Your task to perform on an android device: Open calendar and show me the first week of next month Image 0: 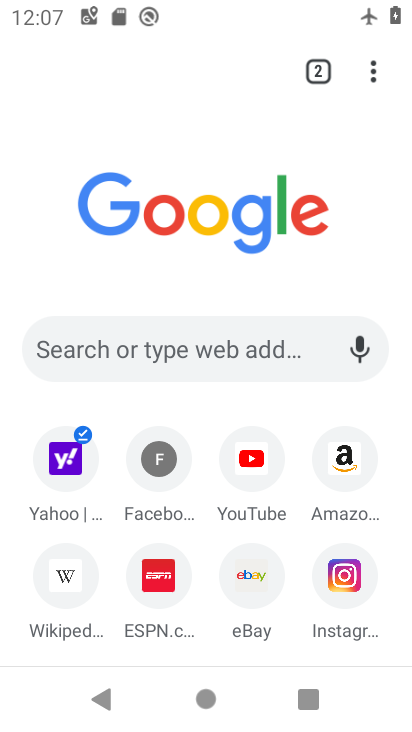
Step 0: press back button
Your task to perform on an android device: Open calendar and show me the first week of next month Image 1: 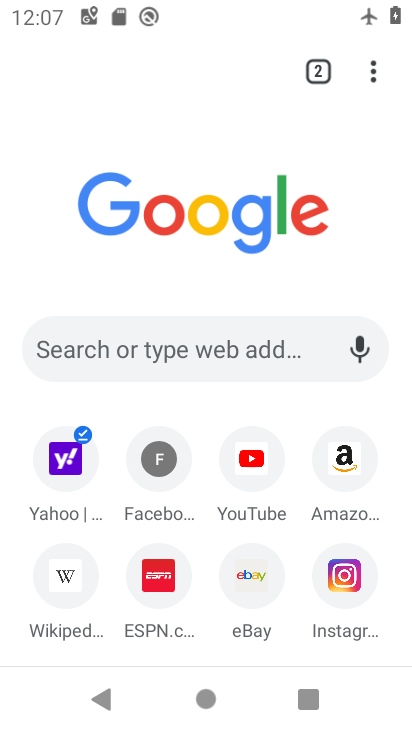
Step 1: press back button
Your task to perform on an android device: Open calendar and show me the first week of next month Image 2: 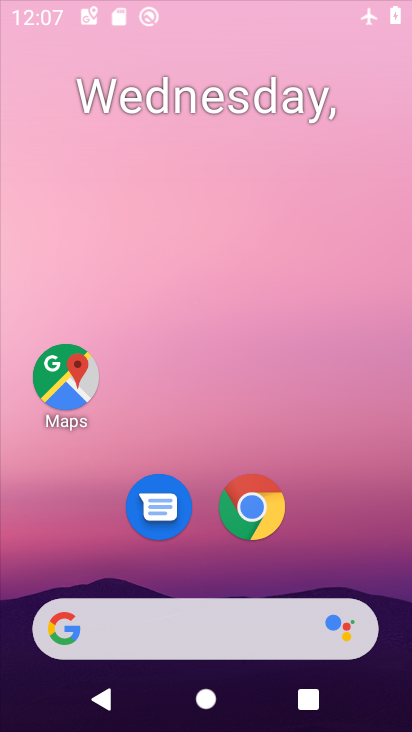
Step 2: press back button
Your task to perform on an android device: Open calendar and show me the first week of next month Image 3: 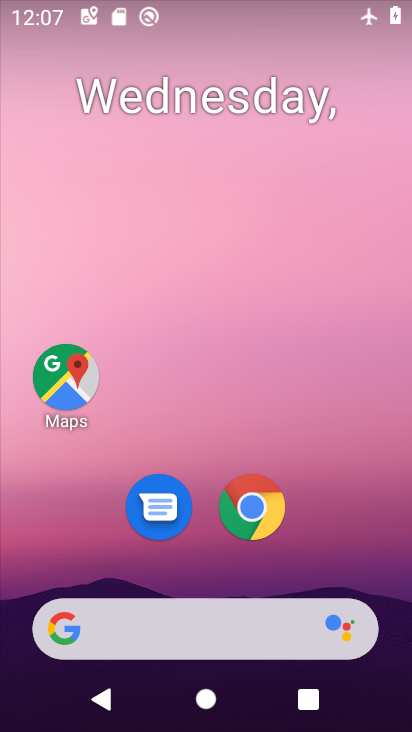
Step 3: drag from (268, 684) to (198, 66)
Your task to perform on an android device: Open calendar and show me the first week of next month Image 4: 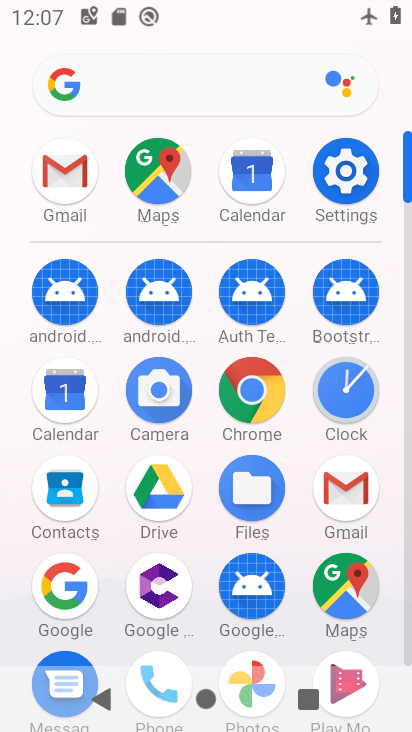
Step 4: click (63, 401)
Your task to perform on an android device: Open calendar and show me the first week of next month Image 5: 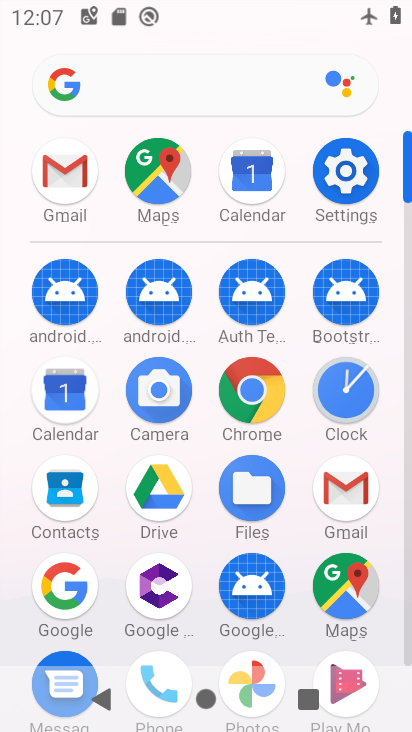
Step 5: click (70, 402)
Your task to perform on an android device: Open calendar and show me the first week of next month Image 6: 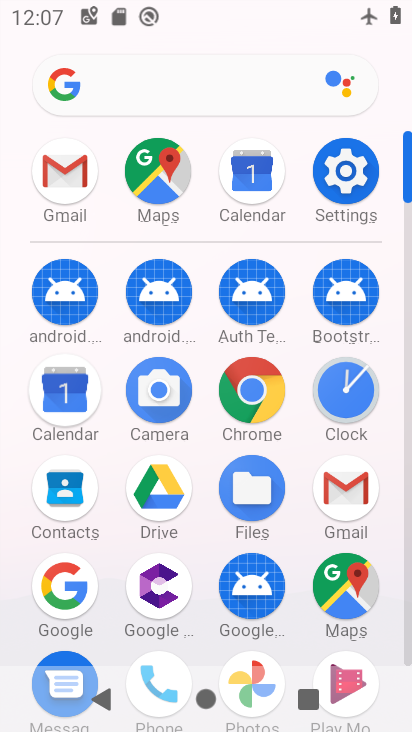
Step 6: click (71, 397)
Your task to perform on an android device: Open calendar and show me the first week of next month Image 7: 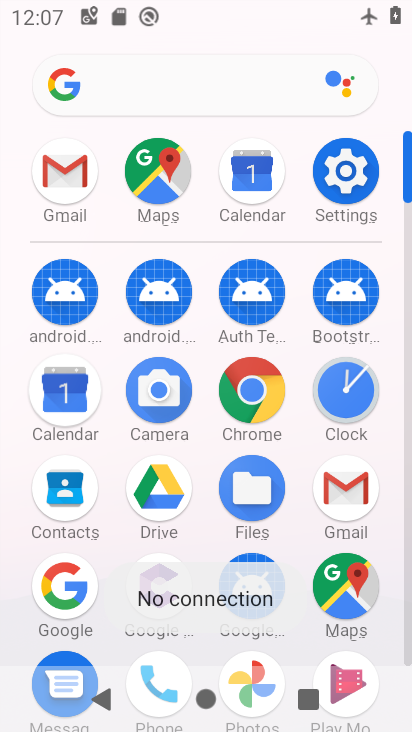
Step 7: click (73, 392)
Your task to perform on an android device: Open calendar and show me the first week of next month Image 8: 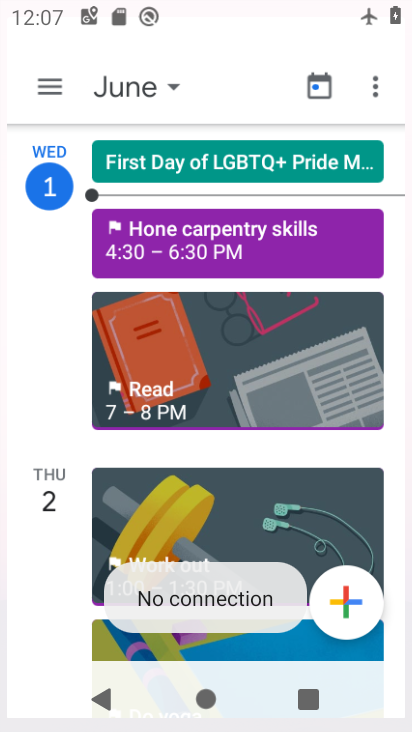
Step 8: click (76, 387)
Your task to perform on an android device: Open calendar and show me the first week of next month Image 9: 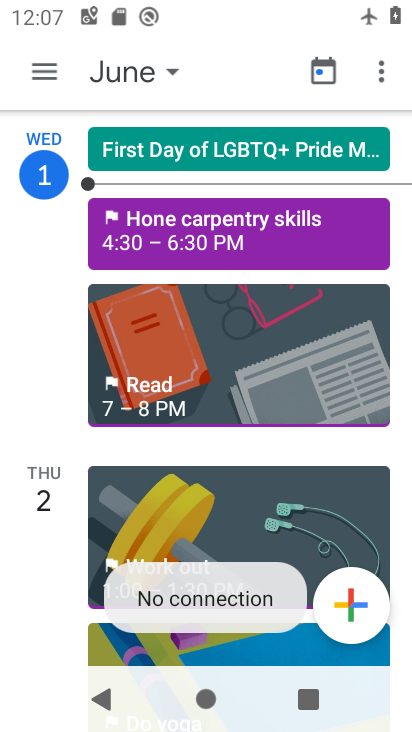
Step 9: click (78, 387)
Your task to perform on an android device: Open calendar and show me the first week of next month Image 10: 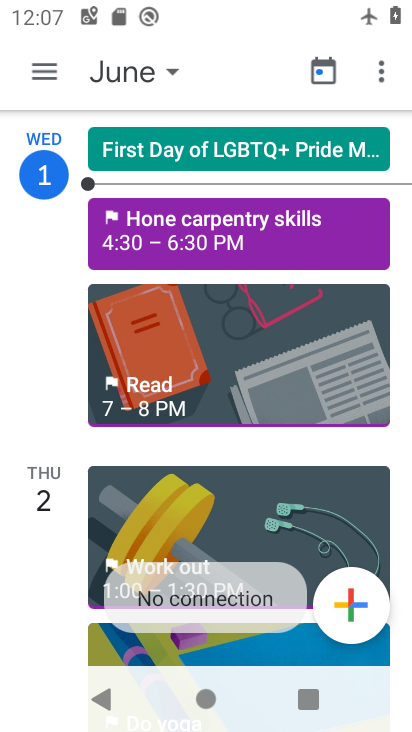
Step 10: click (174, 74)
Your task to perform on an android device: Open calendar and show me the first week of next month Image 11: 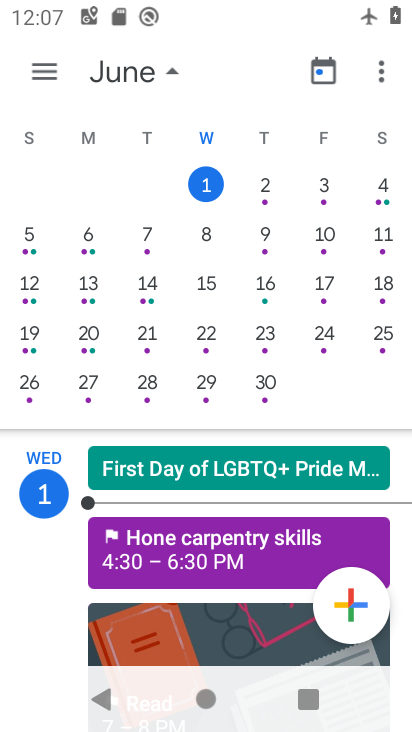
Step 11: drag from (353, 273) to (57, 366)
Your task to perform on an android device: Open calendar and show me the first week of next month Image 12: 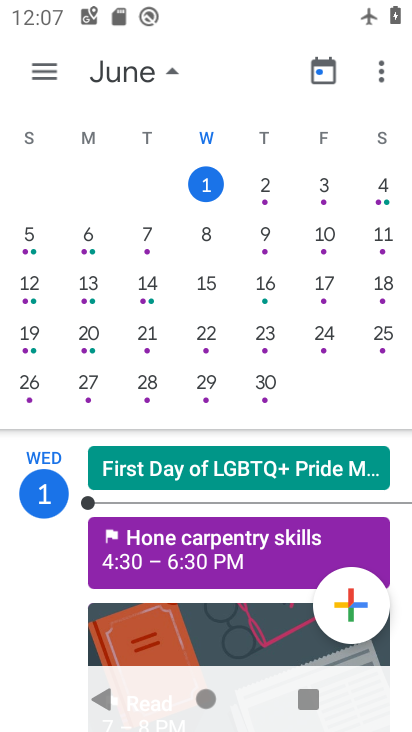
Step 12: drag from (346, 241) to (44, 296)
Your task to perform on an android device: Open calendar and show me the first week of next month Image 13: 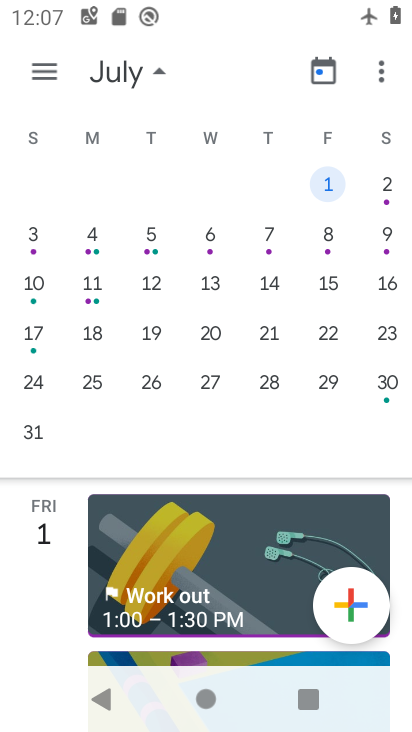
Step 13: drag from (269, 254) to (87, 328)
Your task to perform on an android device: Open calendar and show me the first week of next month Image 14: 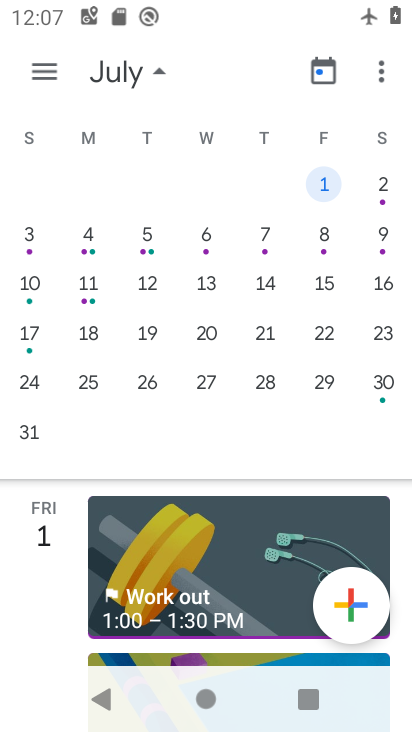
Step 14: drag from (357, 277) to (123, 361)
Your task to perform on an android device: Open calendar and show me the first week of next month Image 15: 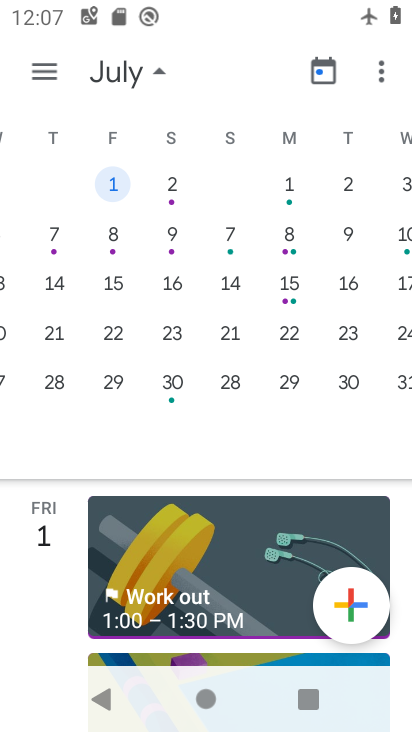
Step 15: drag from (358, 332) to (17, 356)
Your task to perform on an android device: Open calendar and show me the first week of next month Image 16: 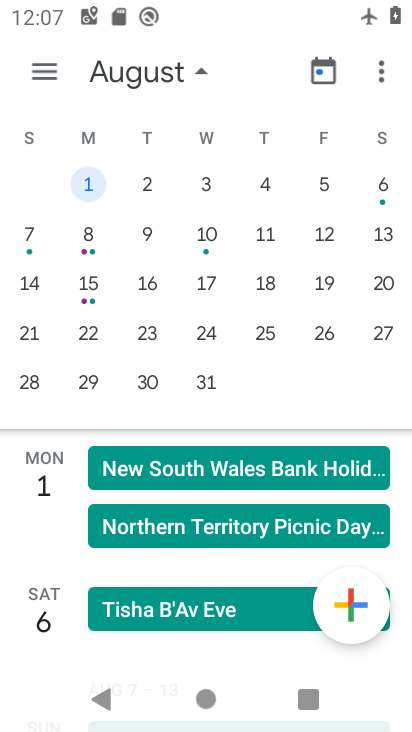
Step 16: drag from (72, 346) to (404, 181)
Your task to perform on an android device: Open calendar and show me the first week of next month Image 17: 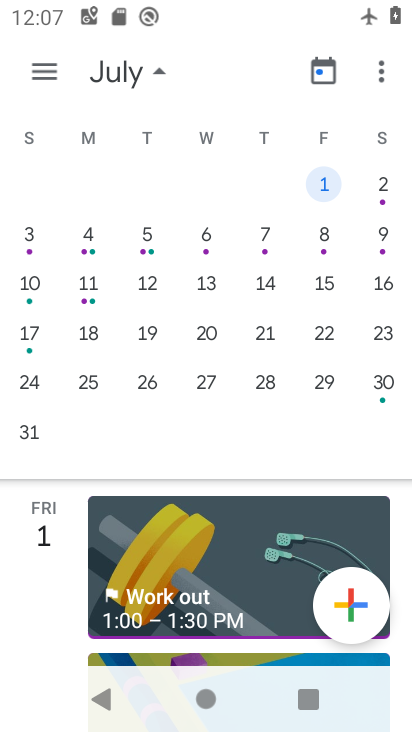
Step 17: drag from (120, 320) to (410, 255)
Your task to perform on an android device: Open calendar and show me the first week of next month Image 18: 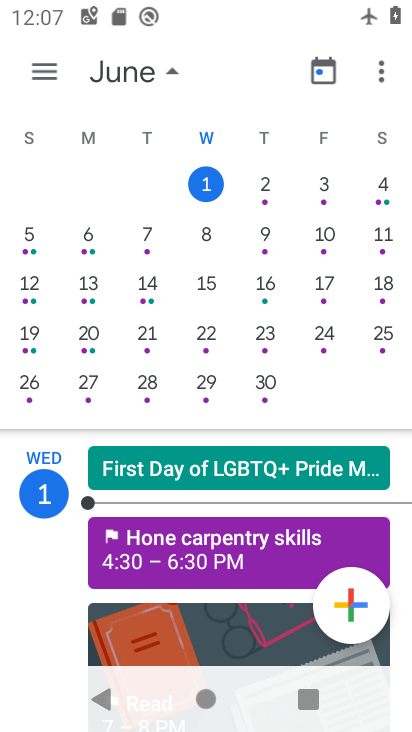
Step 18: drag from (301, 232) to (13, 379)
Your task to perform on an android device: Open calendar and show me the first week of next month Image 19: 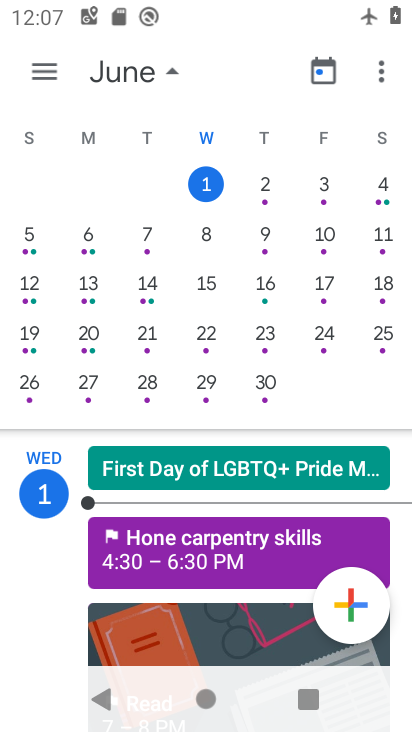
Step 19: drag from (269, 238) to (12, 353)
Your task to perform on an android device: Open calendar and show me the first week of next month Image 20: 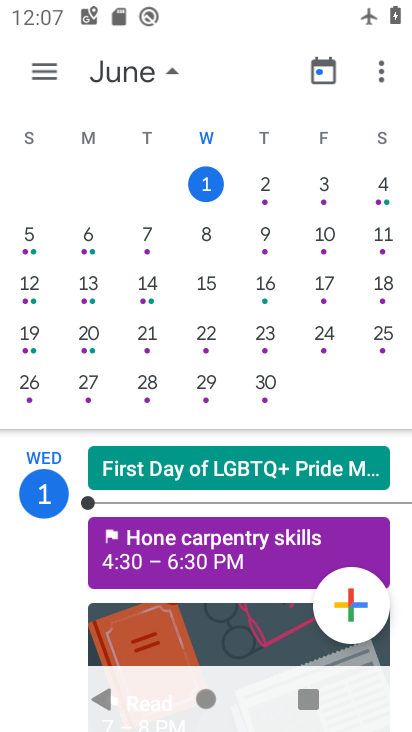
Step 20: drag from (407, 184) to (132, 444)
Your task to perform on an android device: Open calendar and show me the first week of next month Image 21: 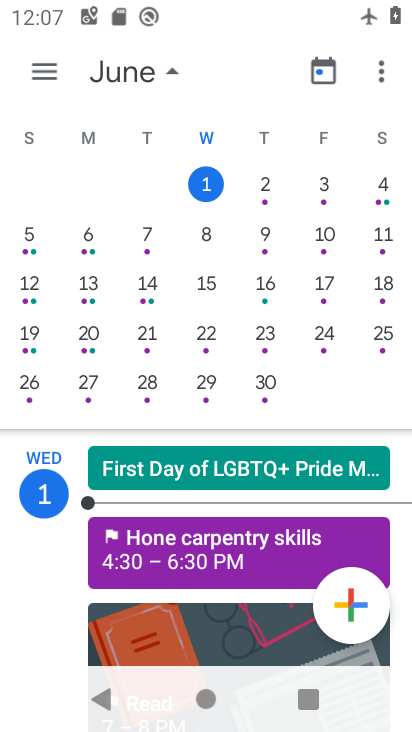
Step 21: drag from (264, 282) to (14, 400)
Your task to perform on an android device: Open calendar and show me the first week of next month Image 22: 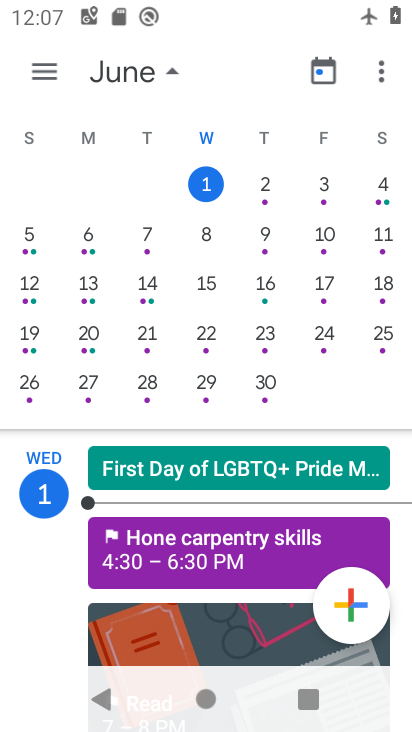
Step 22: drag from (314, 332) to (20, 380)
Your task to perform on an android device: Open calendar and show me the first week of next month Image 23: 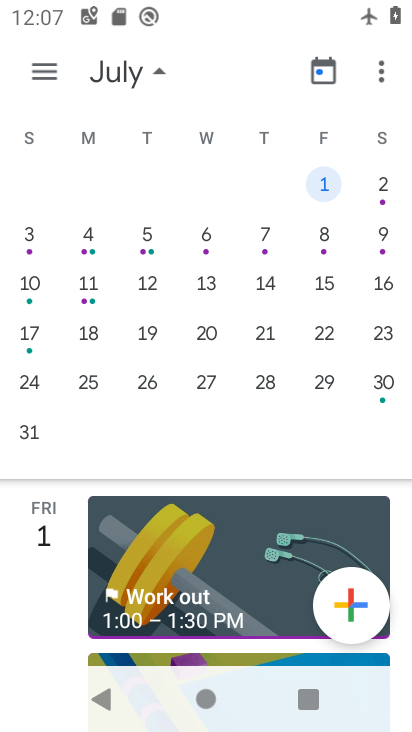
Step 23: click (324, 181)
Your task to perform on an android device: Open calendar and show me the first week of next month Image 24: 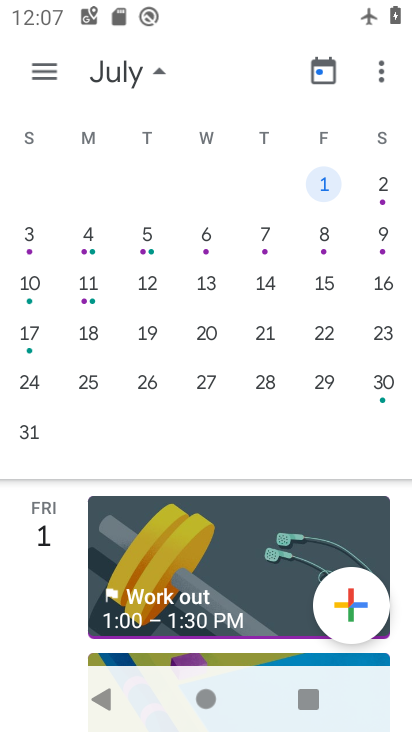
Step 24: task complete